Your task to perform on an android device: move a message to another label in the gmail app Image 0: 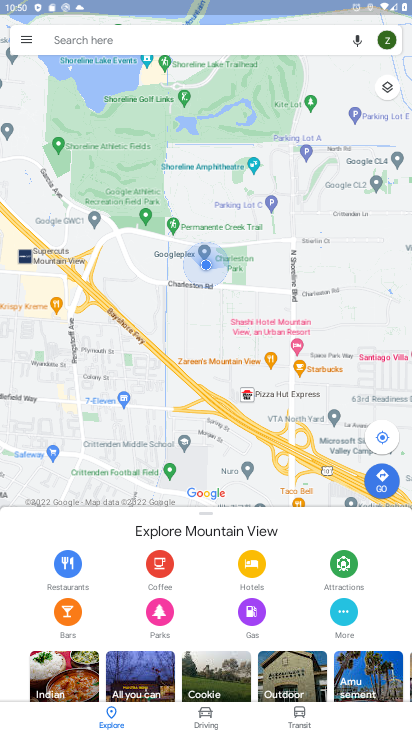
Step 0: task complete